Your task to perform on an android device: change the clock display to show seconds Image 0: 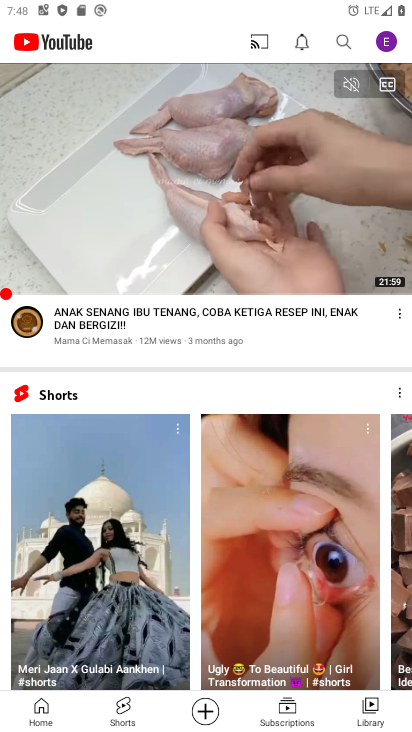
Step 0: press home button
Your task to perform on an android device: change the clock display to show seconds Image 1: 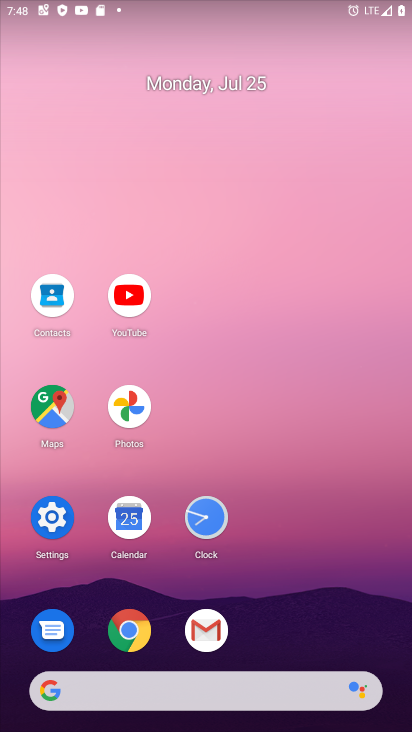
Step 1: click (207, 518)
Your task to perform on an android device: change the clock display to show seconds Image 2: 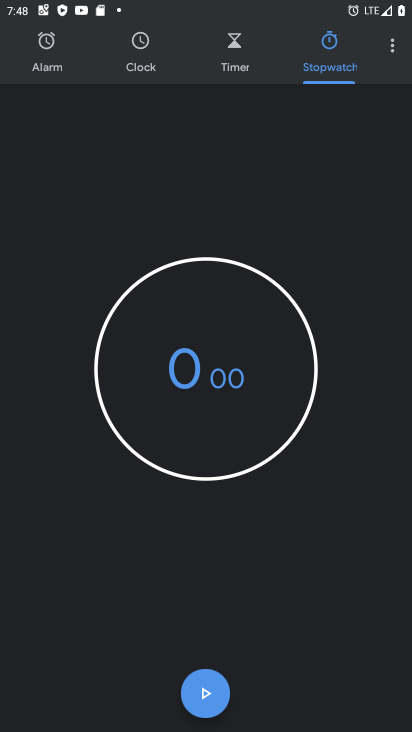
Step 2: click (393, 47)
Your task to perform on an android device: change the clock display to show seconds Image 3: 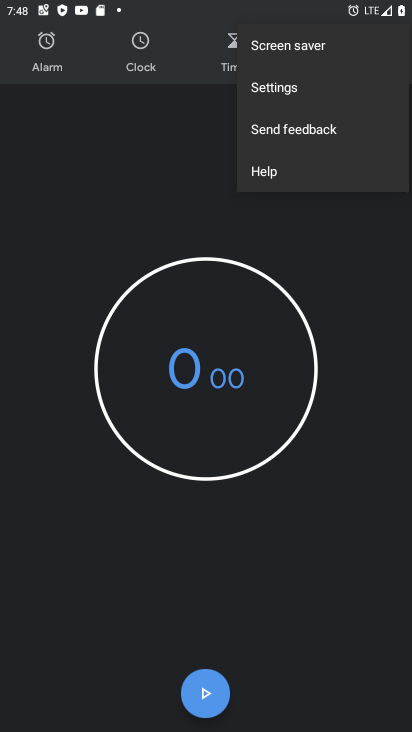
Step 3: click (274, 89)
Your task to perform on an android device: change the clock display to show seconds Image 4: 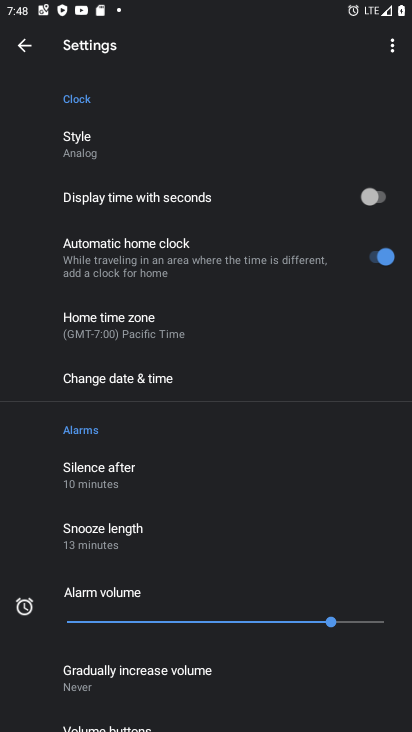
Step 4: click (368, 201)
Your task to perform on an android device: change the clock display to show seconds Image 5: 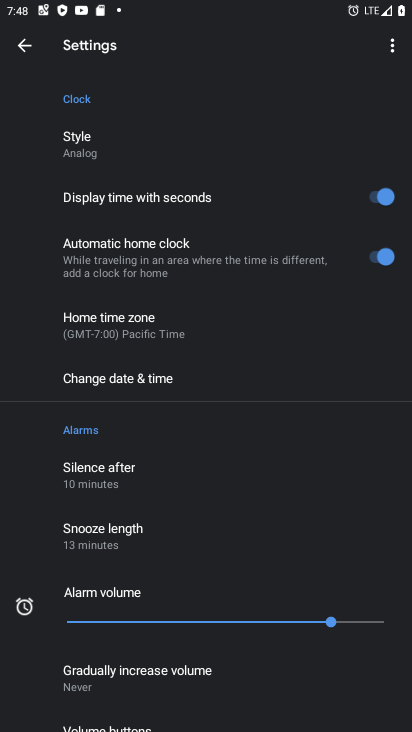
Step 5: task complete